Your task to perform on an android device: create a new album in the google photos Image 0: 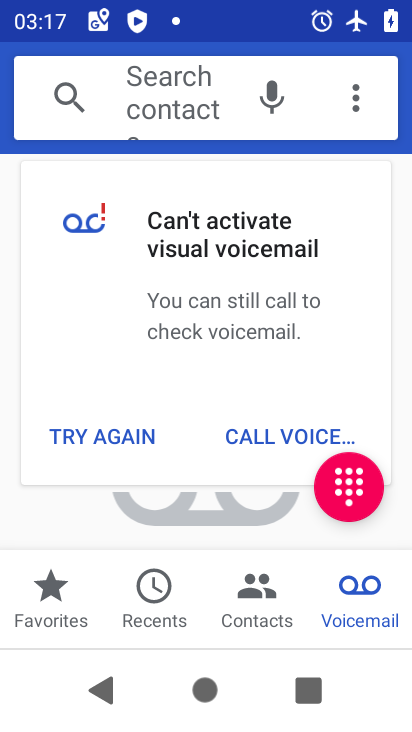
Step 0: press home button
Your task to perform on an android device: create a new album in the google photos Image 1: 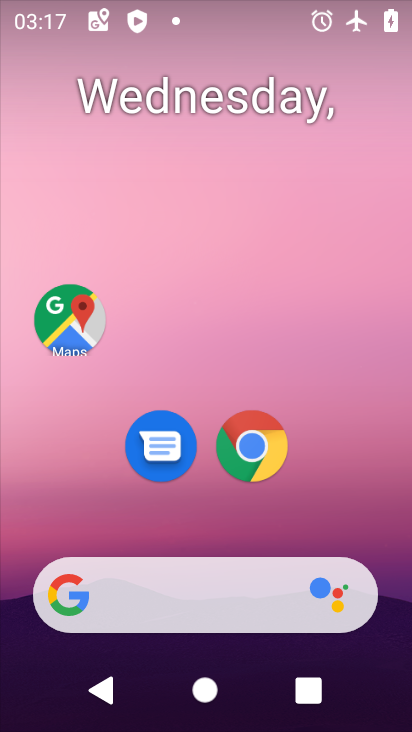
Step 1: drag from (200, 534) to (204, 123)
Your task to perform on an android device: create a new album in the google photos Image 2: 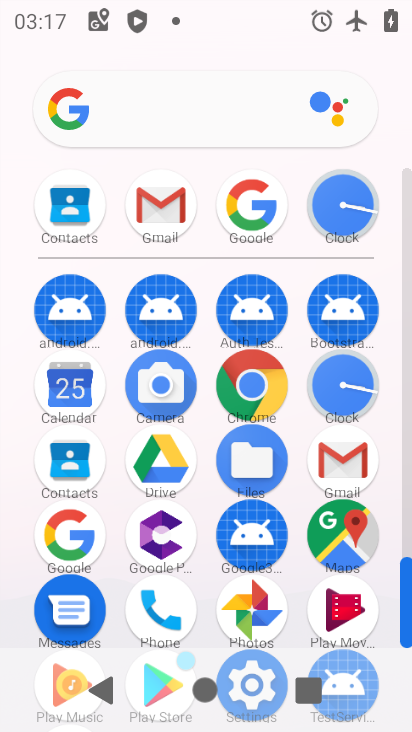
Step 2: drag from (212, 574) to (230, 361)
Your task to perform on an android device: create a new album in the google photos Image 3: 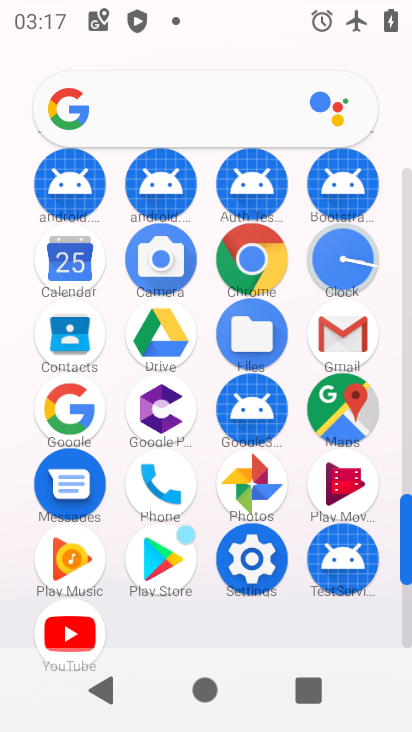
Step 3: click (249, 495)
Your task to perform on an android device: create a new album in the google photos Image 4: 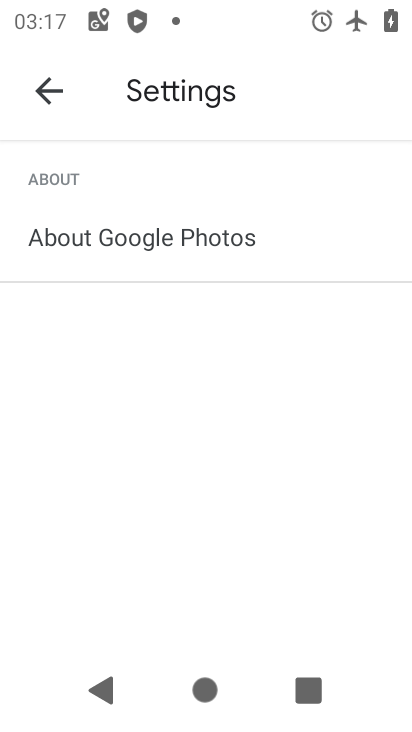
Step 4: click (26, 89)
Your task to perform on an android device: create a new album in the google photos Image 5: 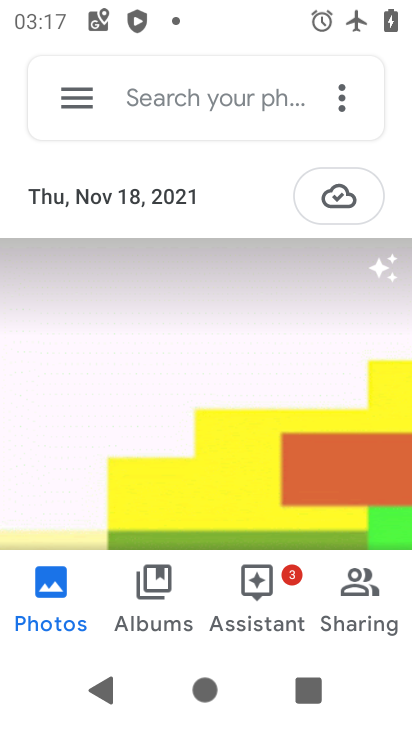
Step 5: click (337, 101)
Your task to perform on an android device: create a new album in the google photos Image 6: 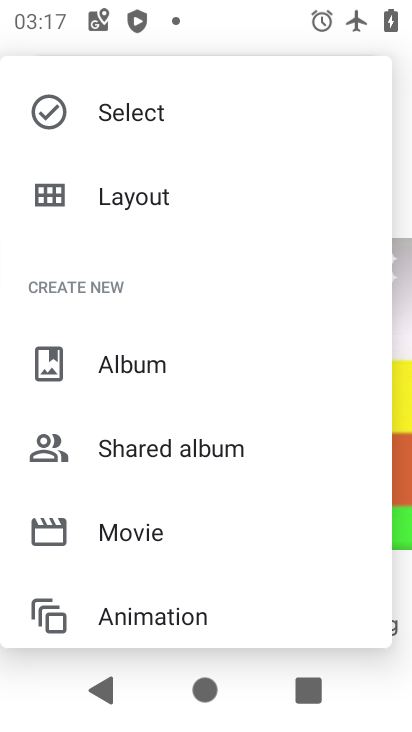
Step 6: click (187, 349)
Your task to perform on an android device: create a new album in the google photos Image 7: 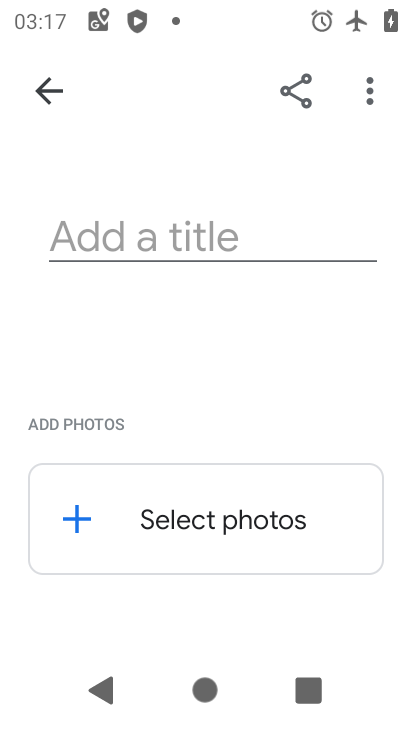
Step 7: click (185, 248)
Your task to perform on an android device: create a new album in the google photos Image 8: 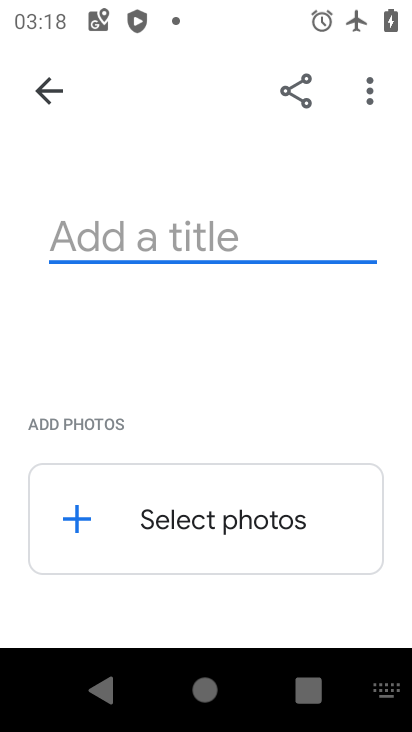
Step 8: type "dsrgsr"
Your task to perform on an android device: create a new album in the google photos Image 9: 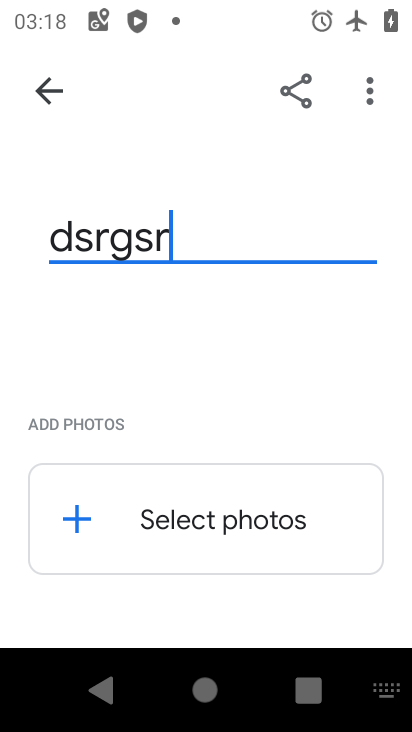
Step 9: click (68, 516)
Your task to perform on an android device: create a new album in the google photos Image 10: 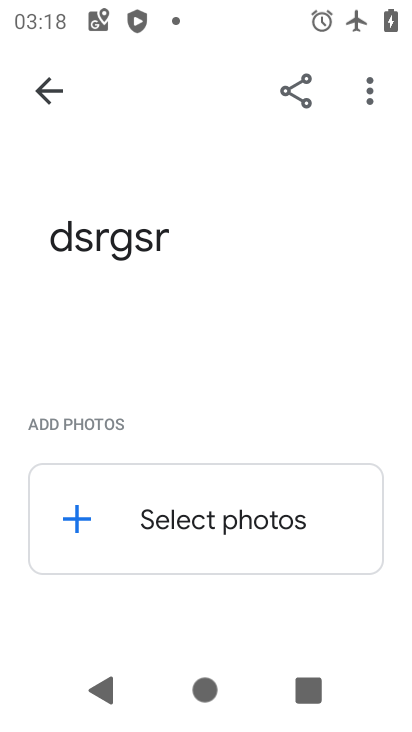
Step 10: click (83, 501)
Your task to perform on an android device: create a new album in the google photos Image 11: 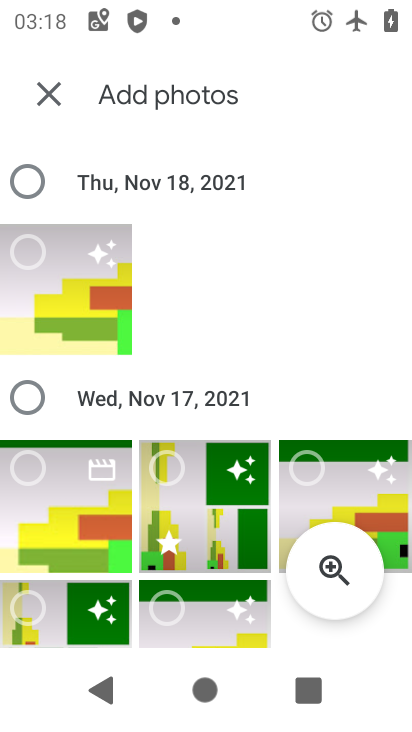
Step 11: click (200, 603)
Your task to perform on an android device: create a new album in the google photos Image 12: 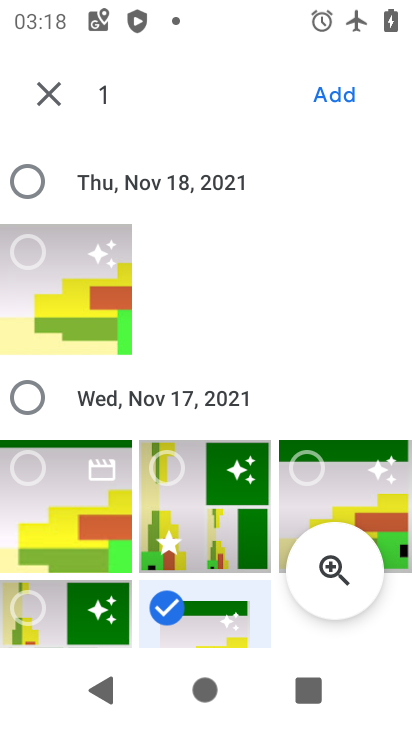
Step 12: click (335, 93)
Your task to perform on an android device: create a new album in the google photos Image 13: 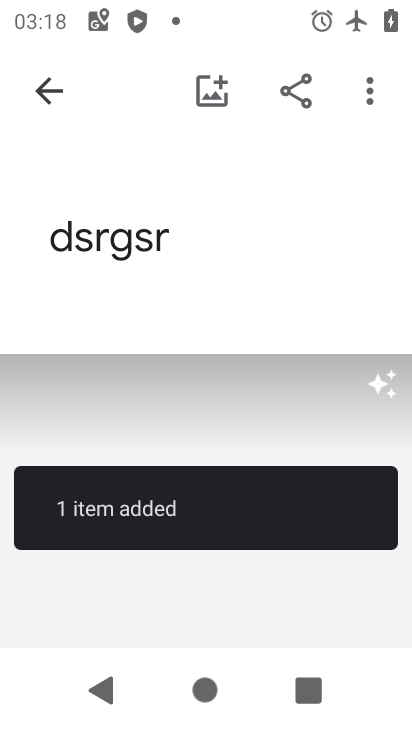
Step 13: task complete